Your task to perform on an android device: toggle improve location accuracy Image 0: 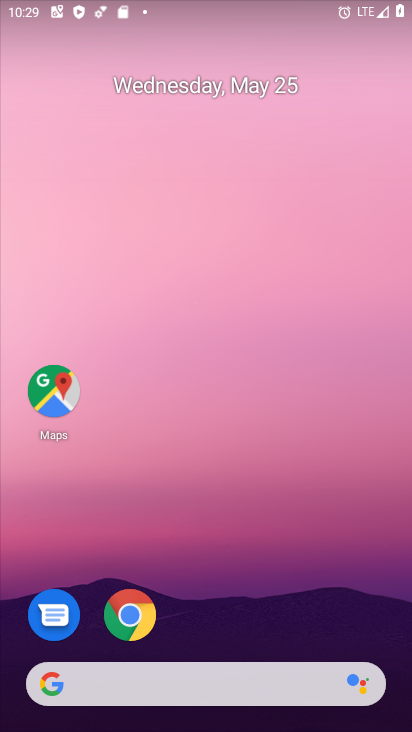
Step 0: drag from (294, 485) to (286, 54)
Your task to perform on an android device: toggle improve location accuracy Image 1: 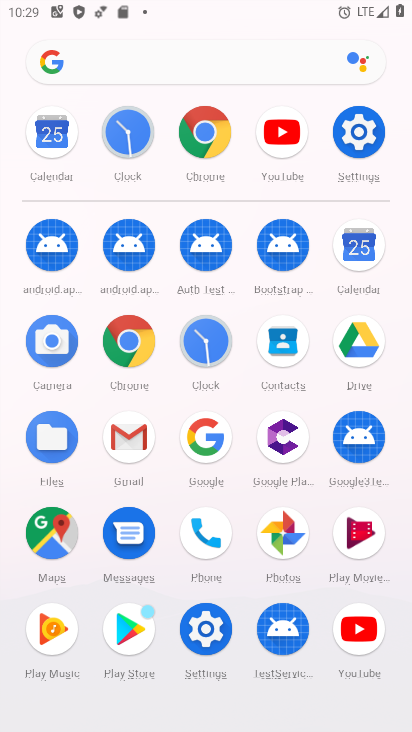
Step 1: click (366, 137)
Your task to perform on an android device: toggle improve location accuracy Image 2: 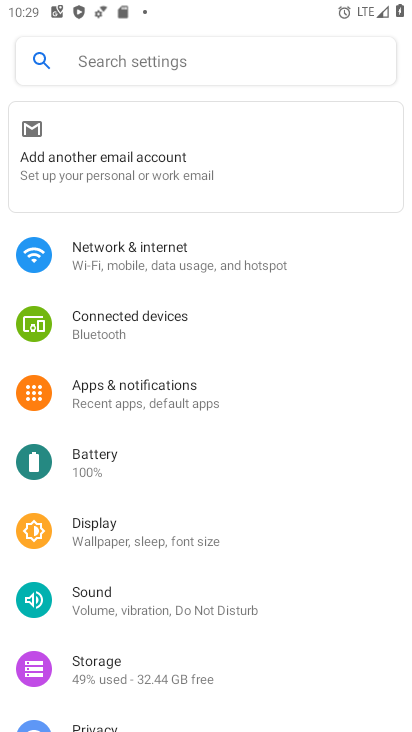
Step 2: drag from (186, 561) to (211, 283)
Your task to perform on an android device: toggle improve location accuracy Image 3: 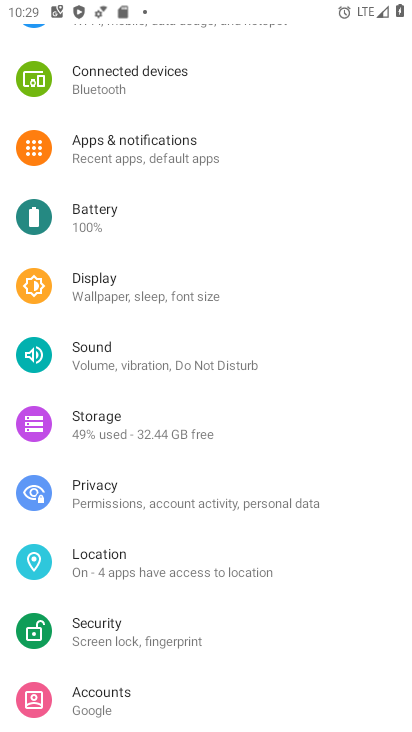
Step 3: click (185, 547)
Your task to perform on an android device: toggle improve location accuracy Image 4: 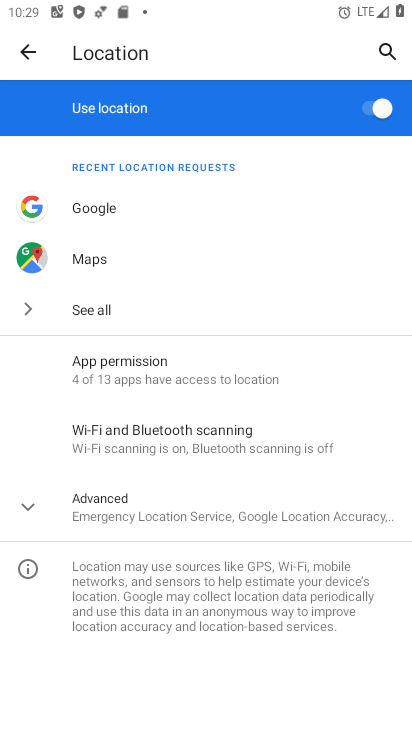
Step 4: click (34, 506)
Your task to perform on an android device: toggle improve location accuracy Image 5: 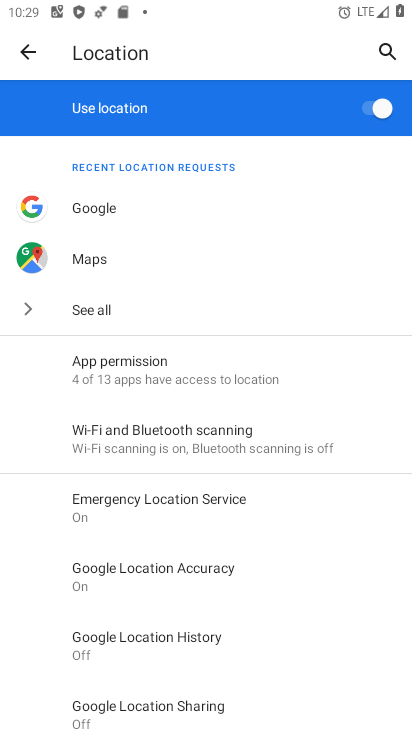
Step 5: click (204, 585)
Your task to perform on an android device: toggle improve location accuracy Image 6: 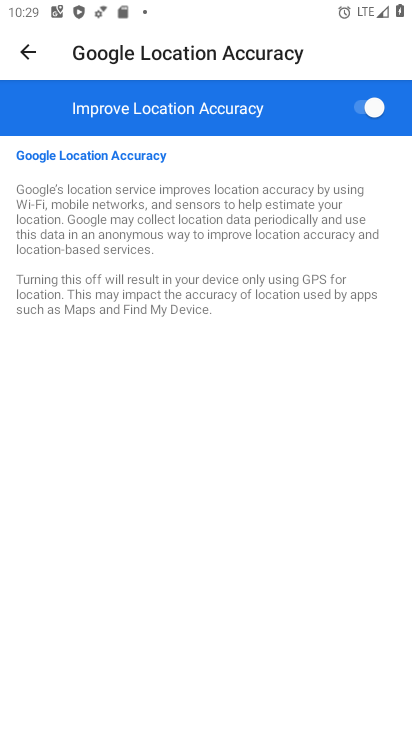
Step 6: click (371, 95)
Your task to perform on an android device: toggle improve location accuracy Image 7: 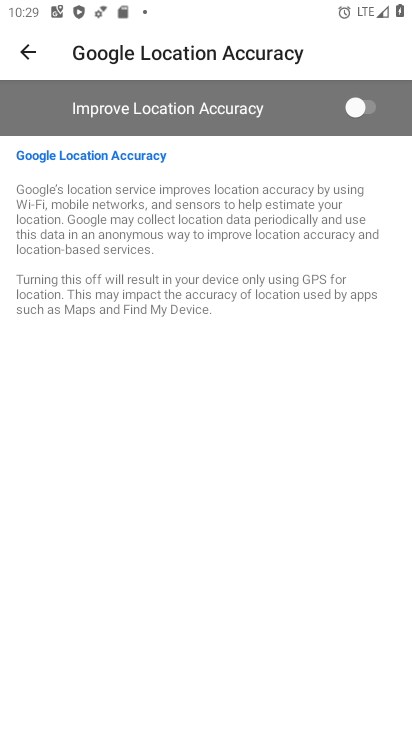
Step 7: task complete